Your task to perform on an android device: What is the news today? Image 0: 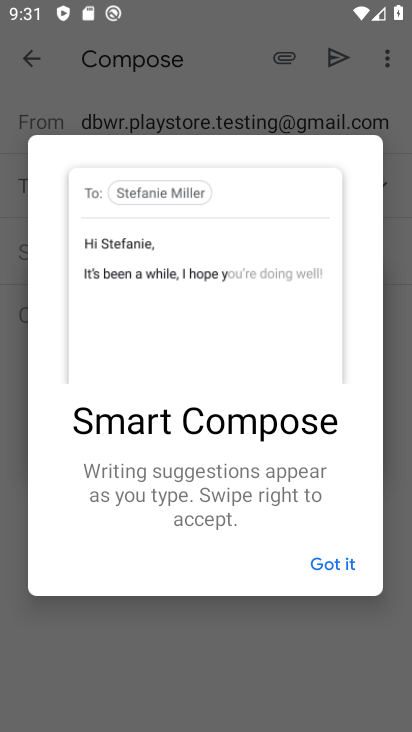
Step 0: press back button
Your task to perform on an android device: What is the news today? Image 1: 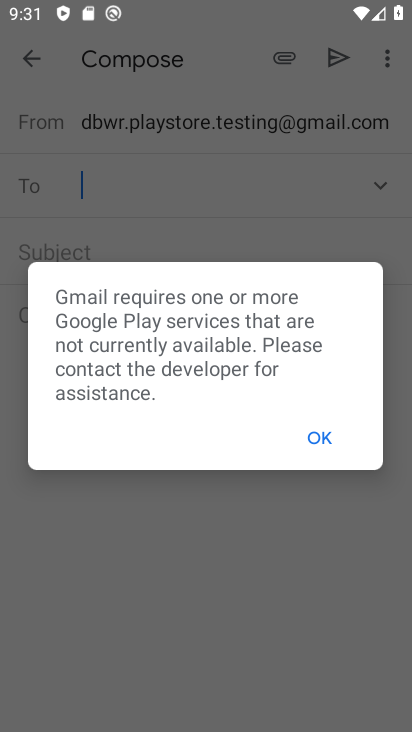
Step 1: press home button
Your task to perform on an android device: What is the news today? Image 2: 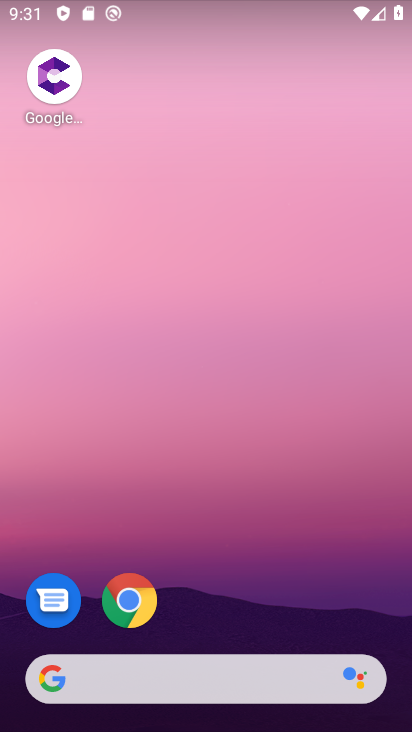
Step 2: drag from (247, 563) to (205, 32)
Your task to perform on an android device: What is the news today? Image 3: 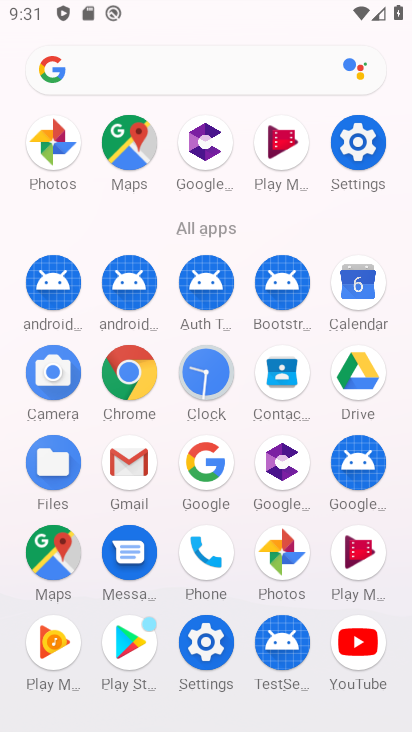
Step 3: click (128, 367)
Your task to perform on an android device: What is the news today? Image 4: 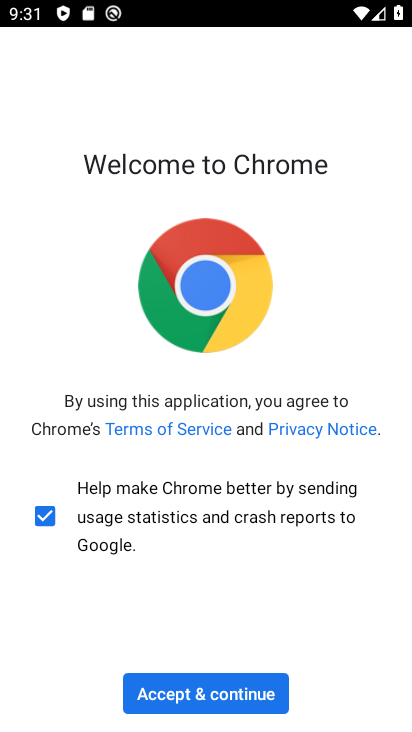
Step 4: click (191, 689)
Your task to perform on an android device: What is the news today? Image 5: 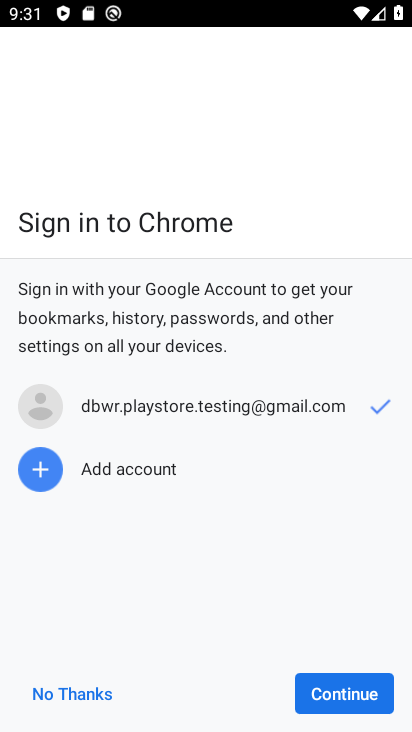
Step 5: click (344, 702)
Your task to perform on an android device: What is the news today? Image 6: 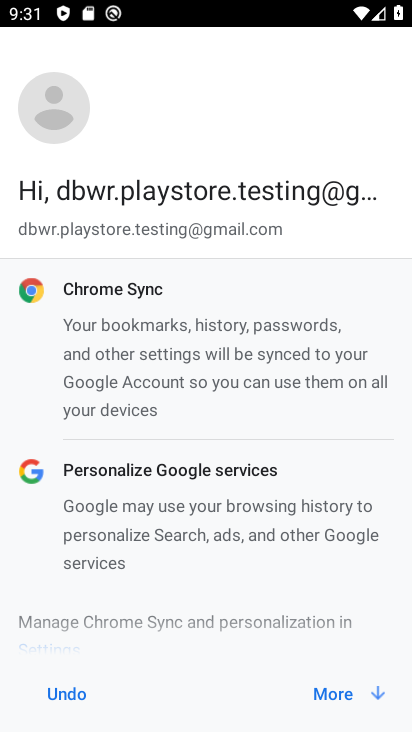
Step 6: click (333, 674)
Your task to perform on an android device: What is the news today? Image 7: 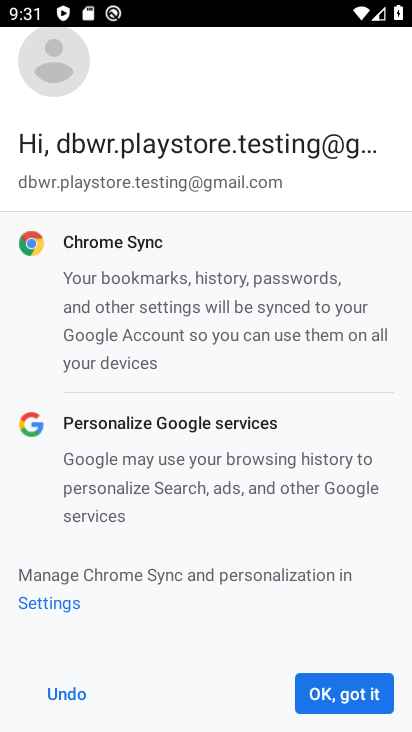
Step 7: click (333, 677)
Your task to perform on an android device: What is the news today? Image 8: 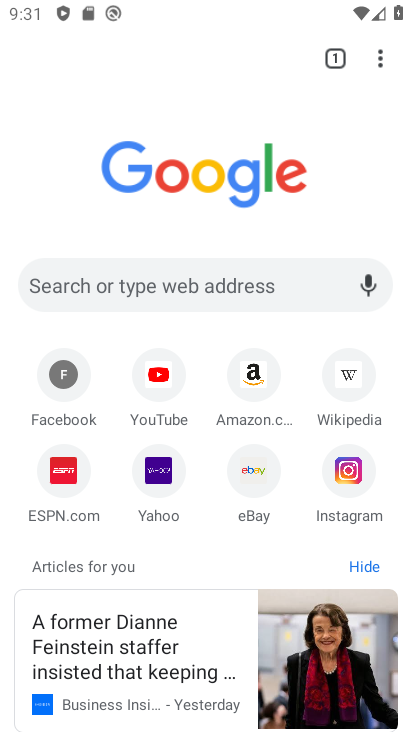
Step 8: click (154, 277)
Your task to perform on an android device: What is the news today? Image 9: 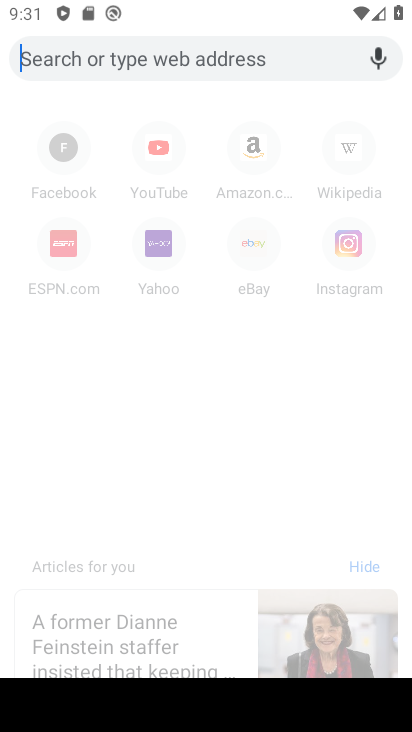
Step 9: type "What is the news today?"
Your task to perform on an android device: What is the news today? Image 10: 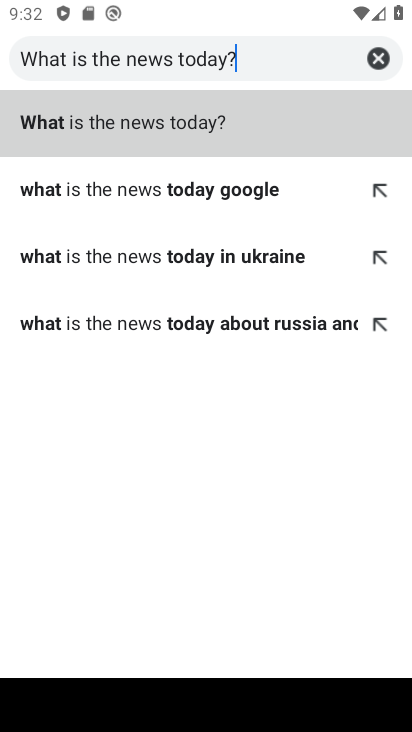
Step 10: type ""
Your task to perform on an android device: What is the news today? Image 11: 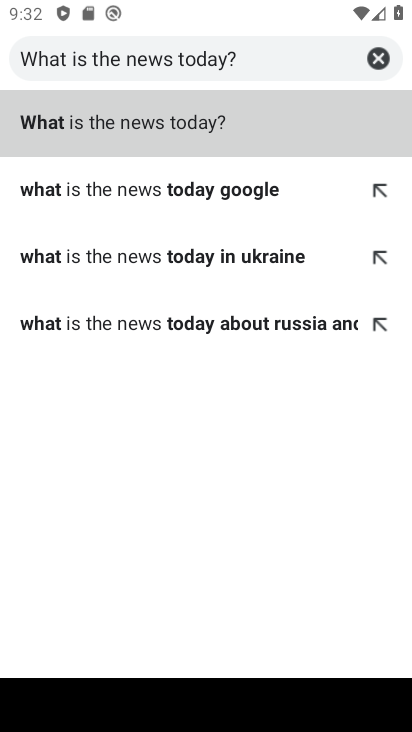
Step 11: click (206, 119)
Your task to perform on an android device: What is the news today? Image 12: 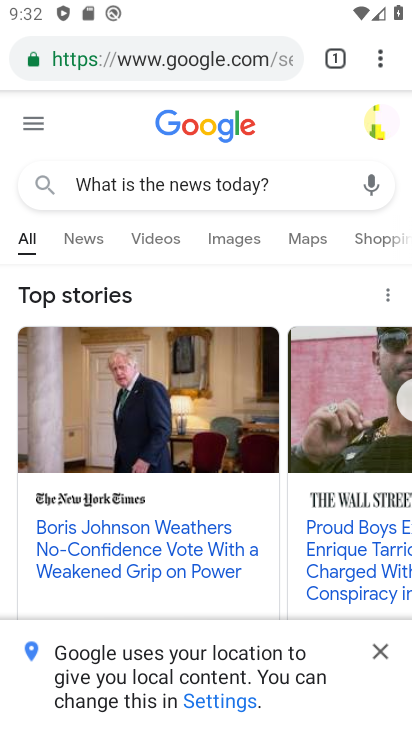
Step 12: task complete